Your task to perform on an android device: open chrome privacy settings Image 0: 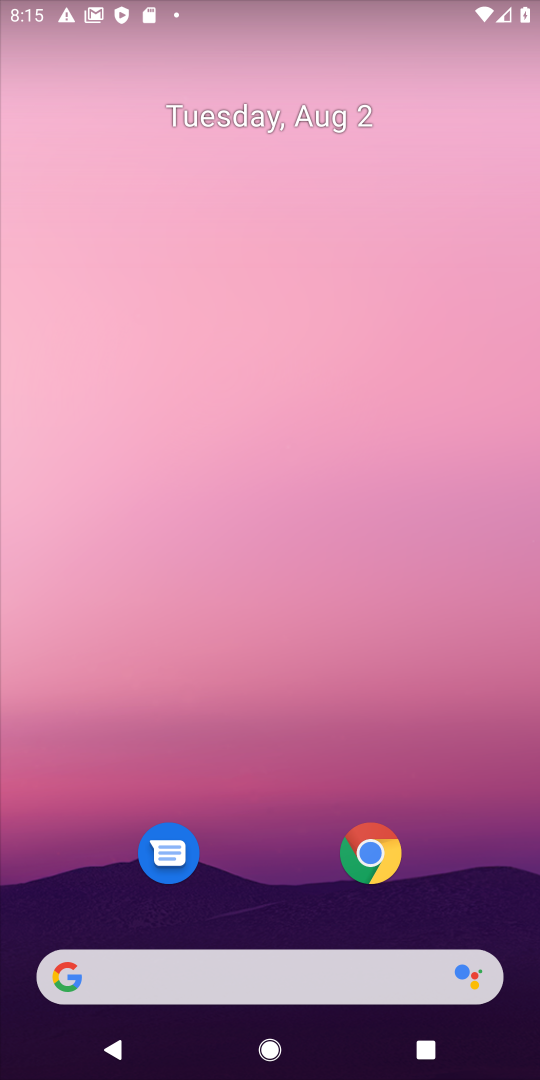
Step 0: click (384, 853)
Your task to perform on an android device: open chrome privacy settings Image 1: 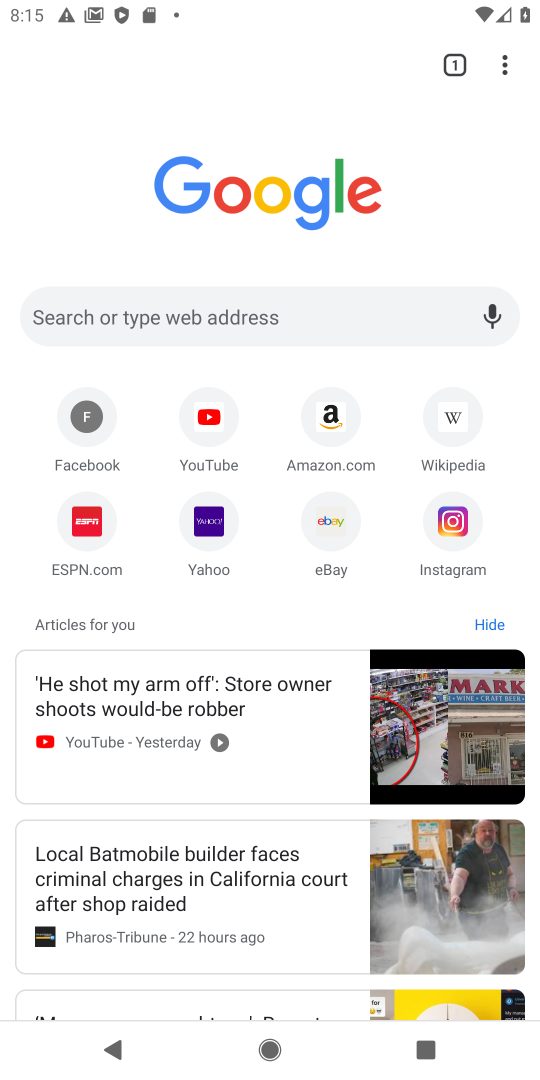
Step 1: click (504, 70)
Your task to perform on an android device: open chrome privacy settings Image 2: 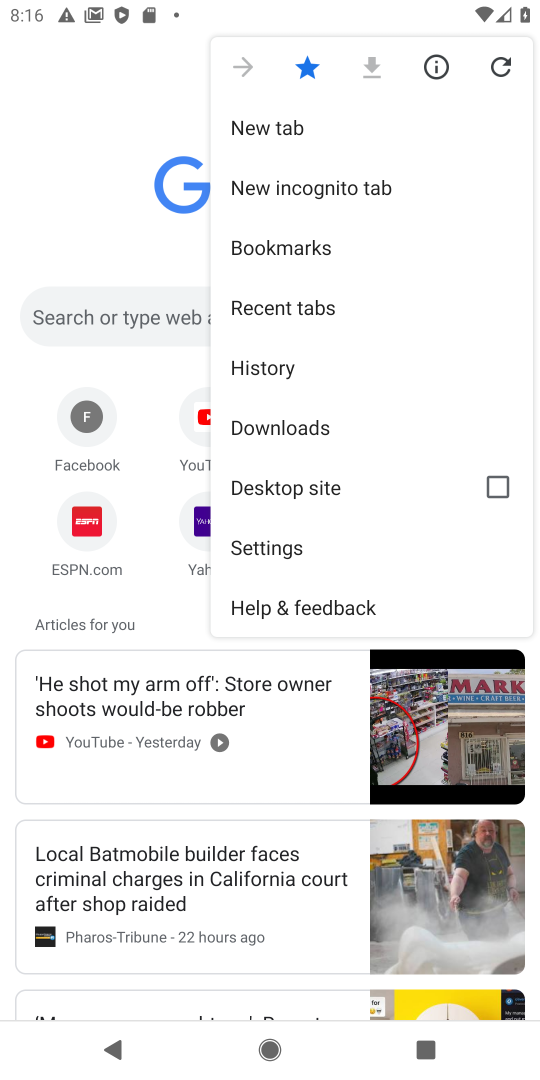
Step 2: click (257, 556)
Your task to perform on an android device: open chrome privacy settings Image 3: 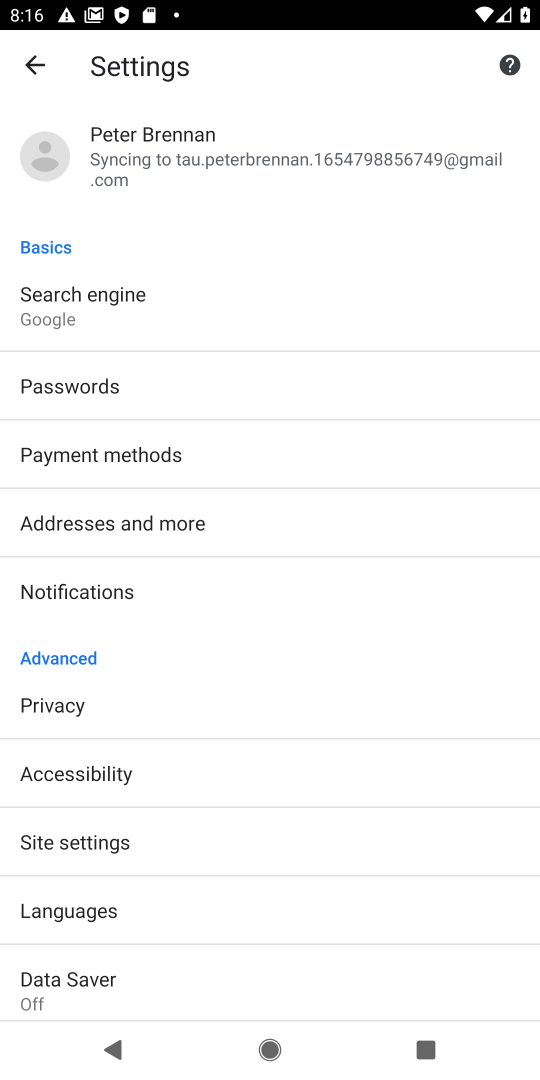
Step 3: click (60, 708)
Your task to perform on an android device: open chrome privacy settings Image 4: 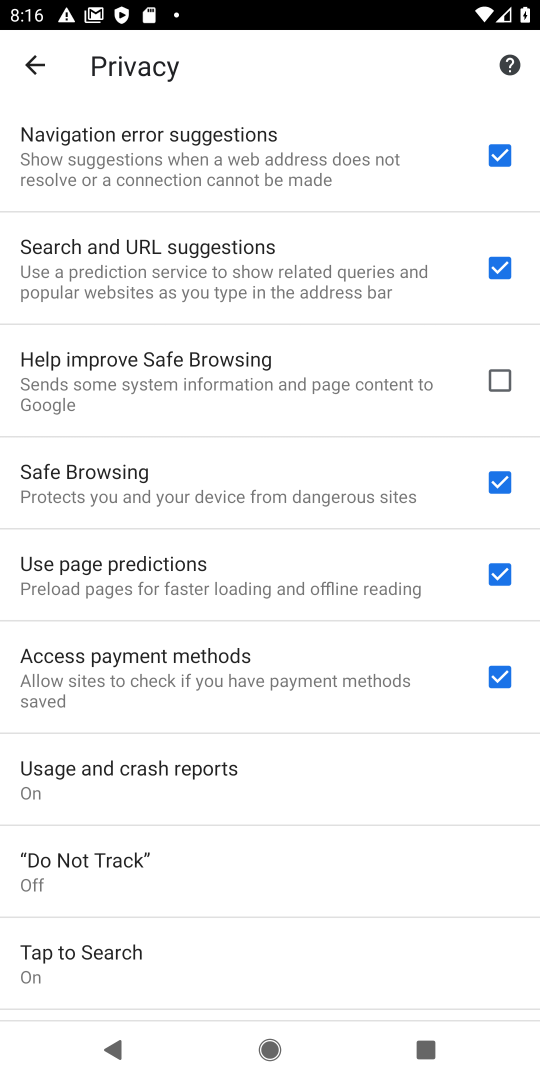
Step 4: task complete